Your task to perform on an android device: Open sound settings Image 0: 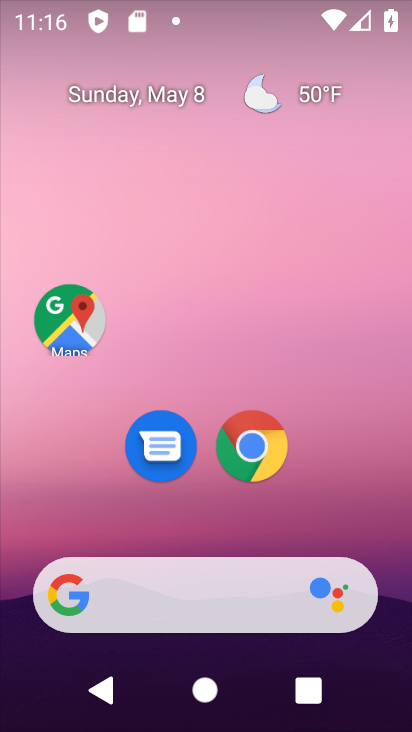
Step 0: drag from (356, 515) to (234, 13)
Your task to perform on an android device: Open sound settings Image 1: 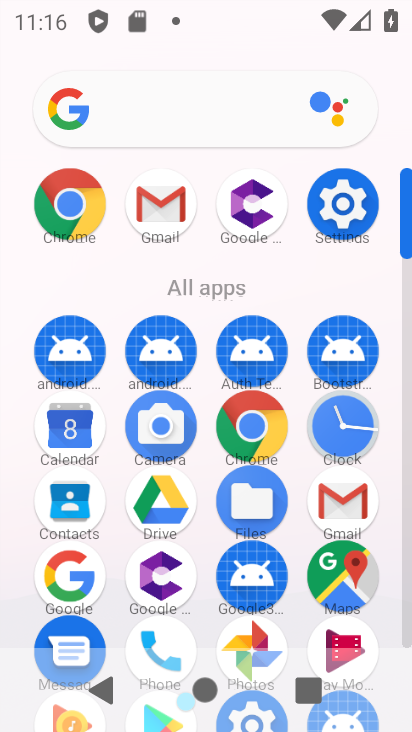
Step 1: click (324, 184)
Your task to perform on an android device: Open sound settings Image 2: 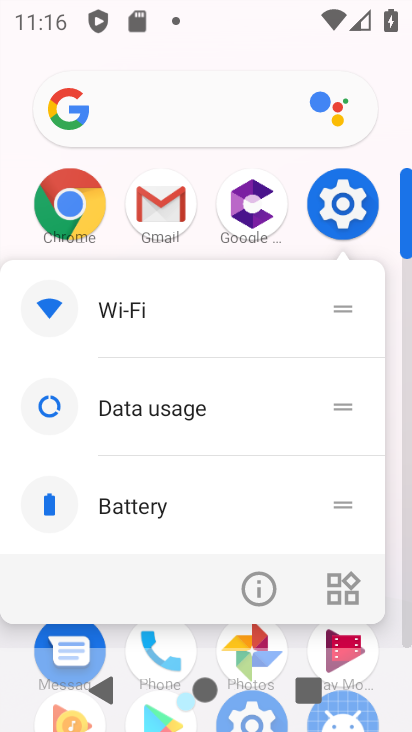
Step 2: click (335, 197)
Your task to perform on an android device: Open sound settings Image 3: 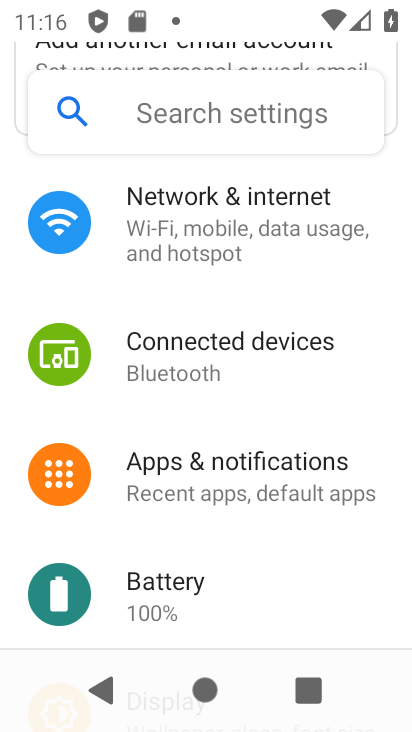
Step 3: drag from (203, 521) to (192, 423)
Your task to perform on an android device: Open sound settings Image 4: 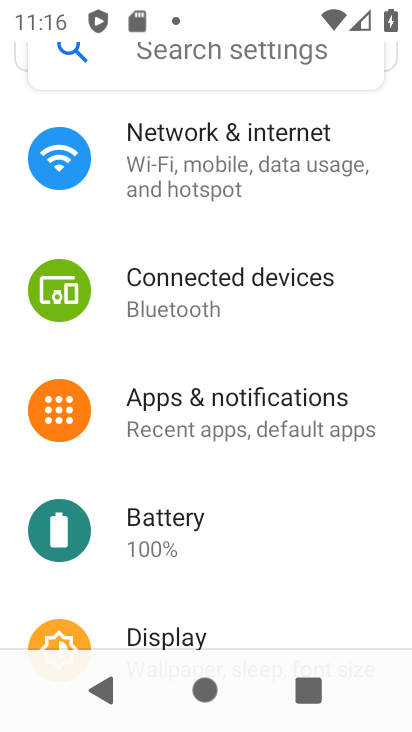
Step 4: drag from (211, 559) to (218, 448)
Your task to perform on an android device: Open sound settings Image 5: 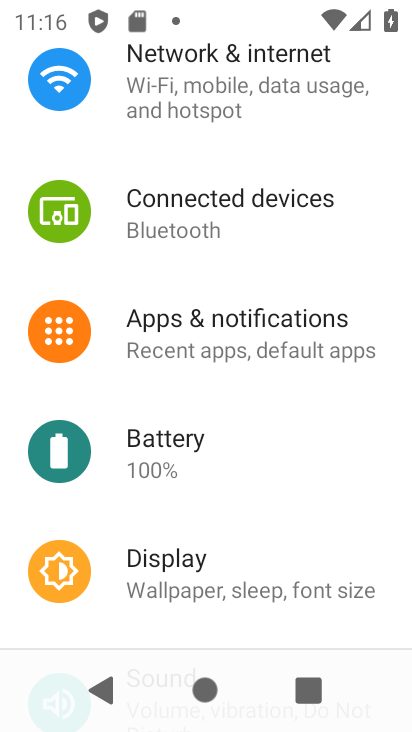
Step 5: drag from (213, 555) to (239, 312)
Your task to perform on an android device: Open sound settings Image 6: 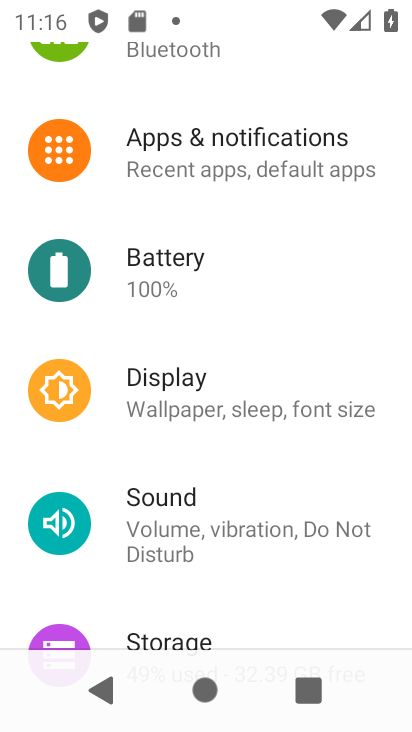
Step 6: click (182, 494)
Your task to perform on an android device: Open sound settings Image 7: 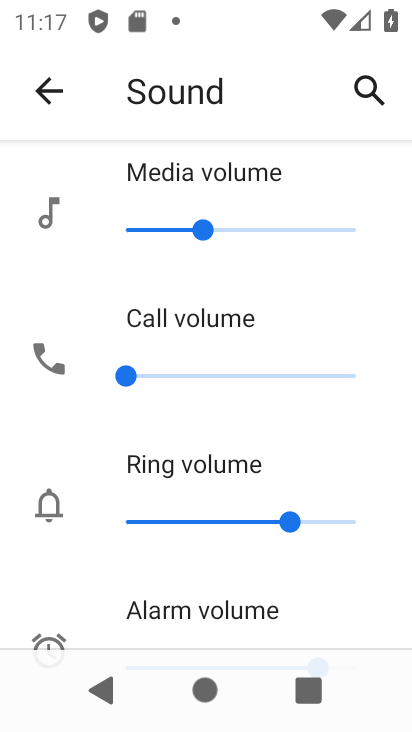
Step 7: task complete